Your task to perform on an android device: change the clock style Image 0: 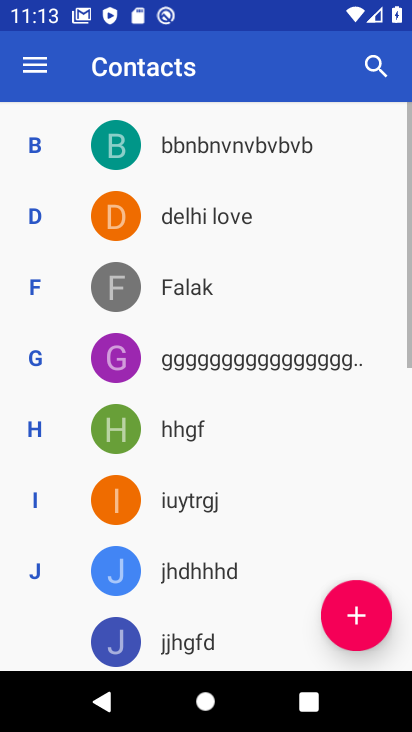
Step 0: press home button
Your task to perform on an android device: change the clock style Image 1: 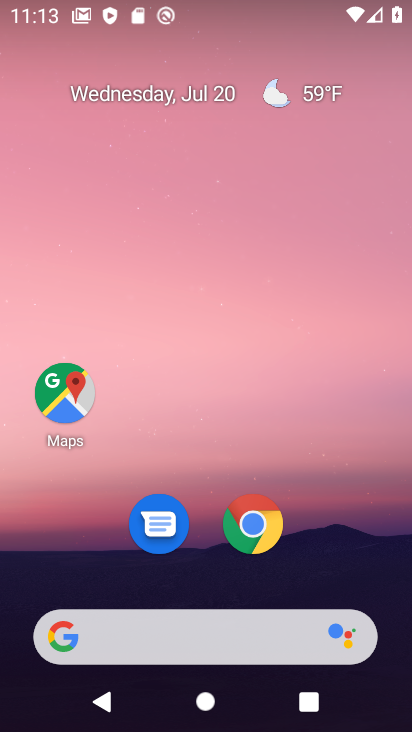
Step 1: drag from (226, 647) to (286, 16)
Your task to perform on an android device: change the clock style Image 2: 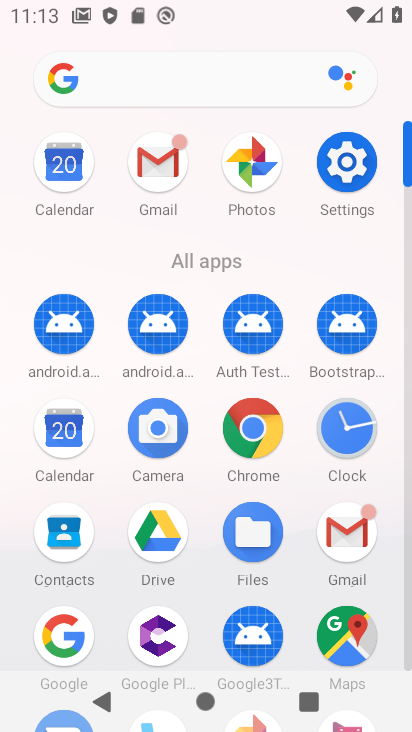
Step 2: click (356, 425)
Your task to perform on an android device: change the clock style Image 3: 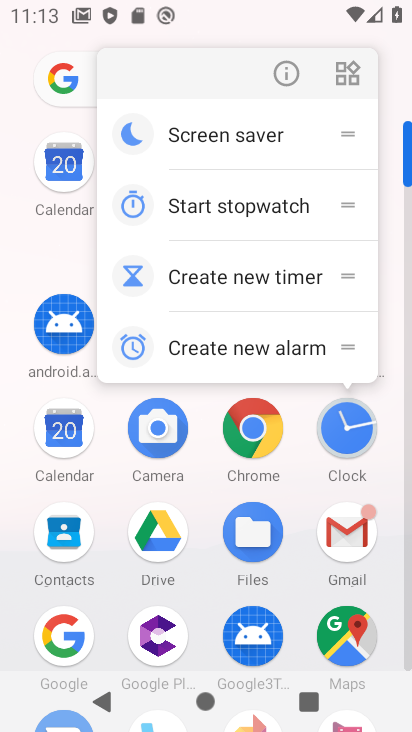
Step 3: click (357, 426)
Your task to perform on an android device: change the clock style Image 4: 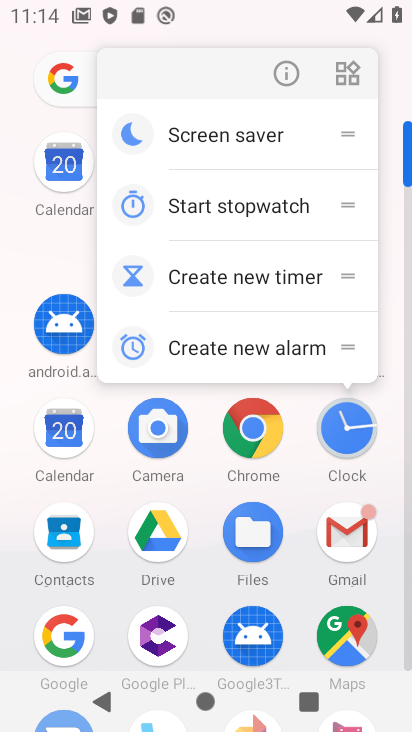
Step 4: click (359, 422)
Your task to perform on an android device: change the clock style Image 5: 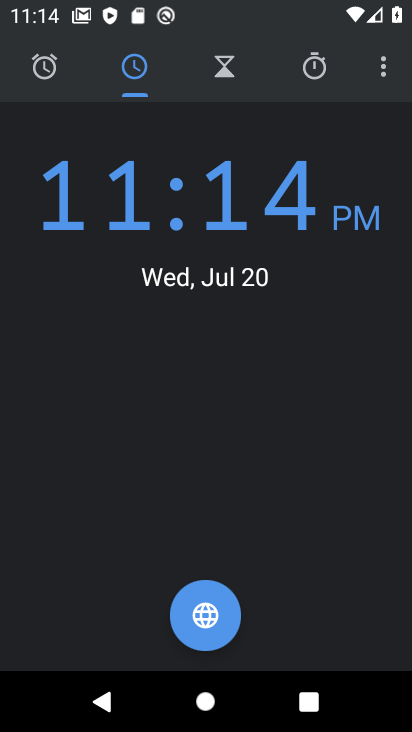
Step 5: click (384, 71)
Your task to perform on an android device: change the clock style Image 6: 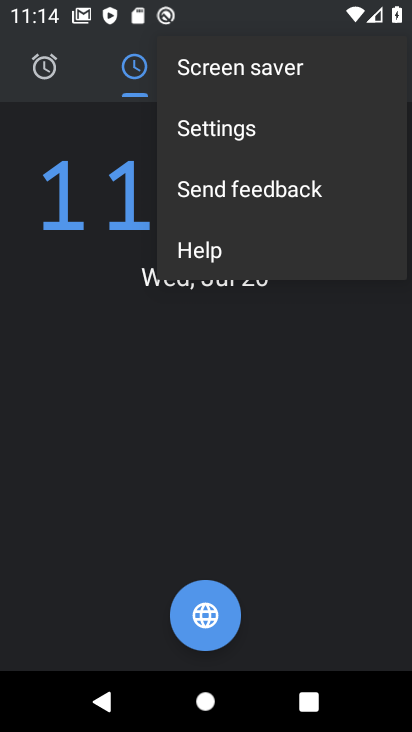
Step 6: click (224, 131)
Your task to perform on an android device: change the clock style Image 7: 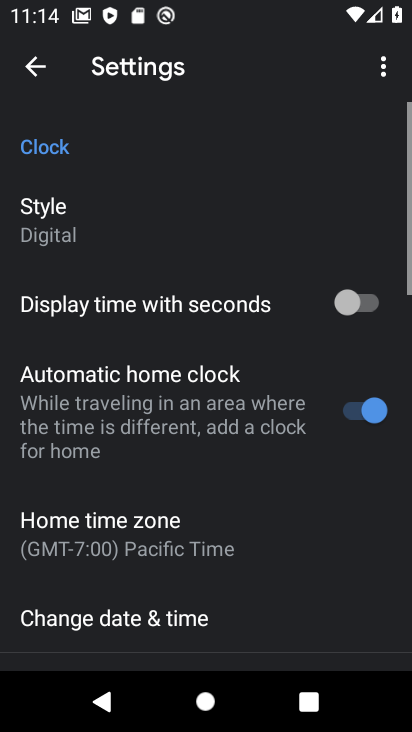
Step 7: click (52, 214)
Your task to perform on an android device: change the clock style Image 8: 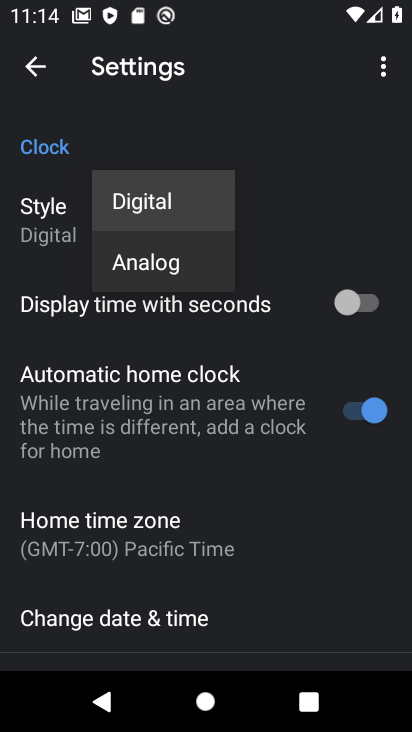
Step 8: click (143, 263)
Your task to perform on an android device: change the clock style Image 9: 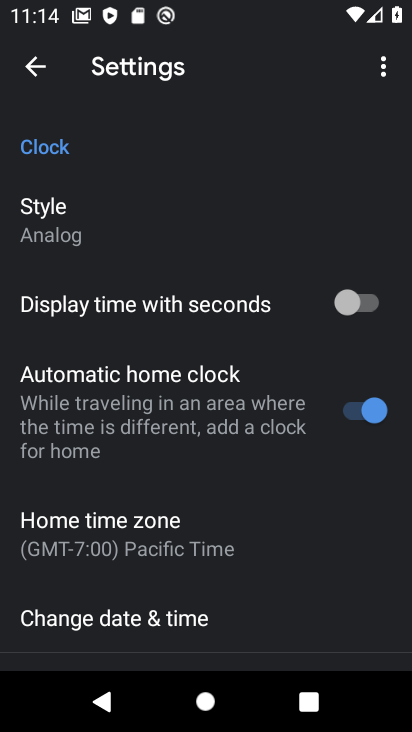
Step 9: task complete